Your task to perform on an android device: turn off data saver in the chrome app Image 0: 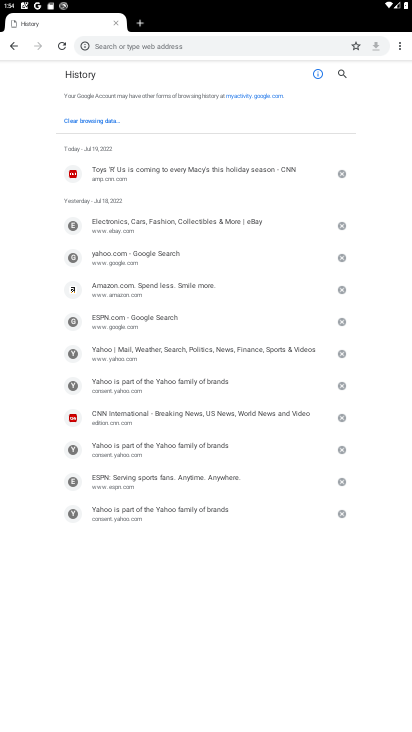
Step 0: click (400, 43)
Your task to perform on an android device: turn off data saver in the chrome app Image 1: 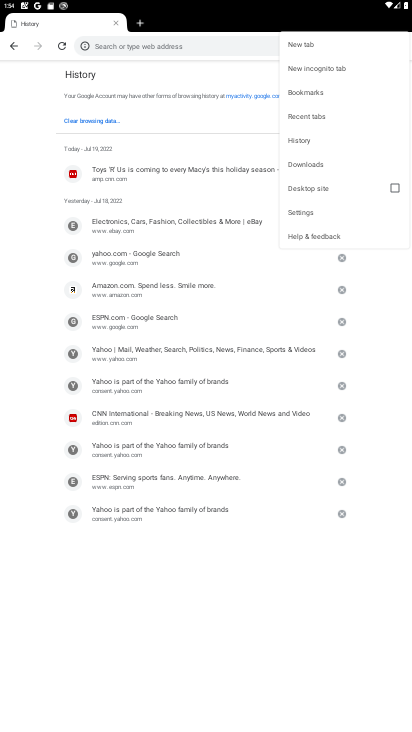
Step 1: click (294, 213)
Your task to perform on an android device: turn off data saver in the chrome app Image 2: 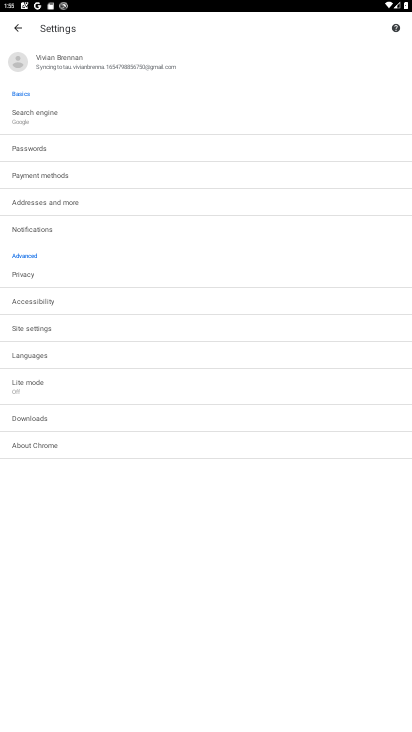
Step 2: click (60, 384)
Your task to perform on an android device: turn off data saver in the chrome app Image 3: 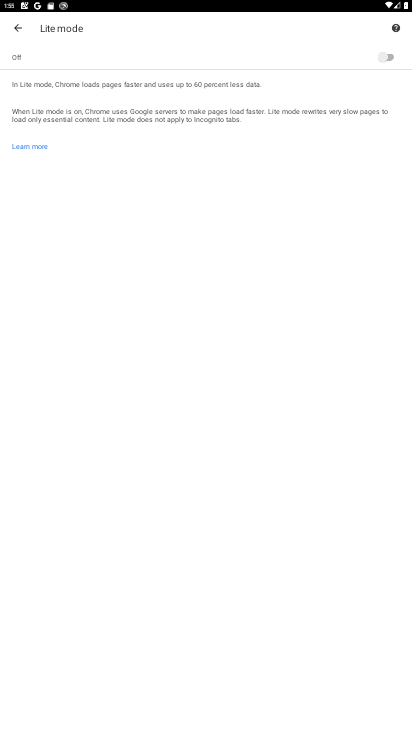
Step 3: task complete